Your task to perform on an android device: Search for the new Jordans on Nike.com Image 0: 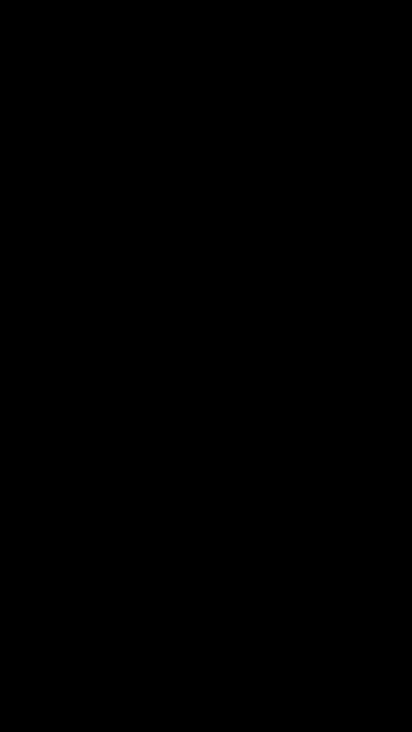
Step 0: press home button
Your task to perform on an android device: Search for the new Jordans on Nike.com Image 1: 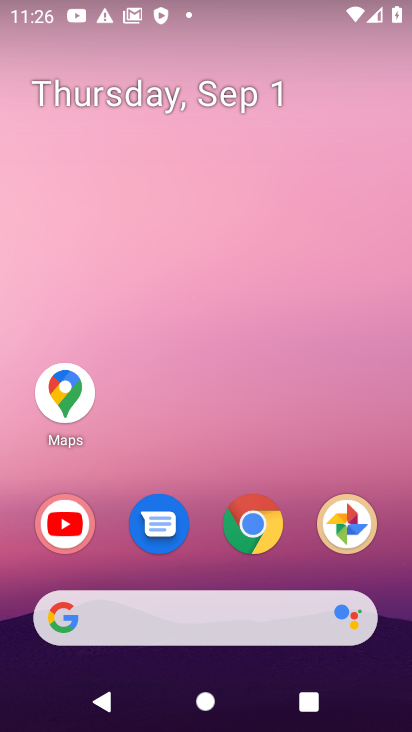
Step 1: click (256, 528)
Your task to perform on an android device: Search for the new Jordans on Nike.com Image 2: 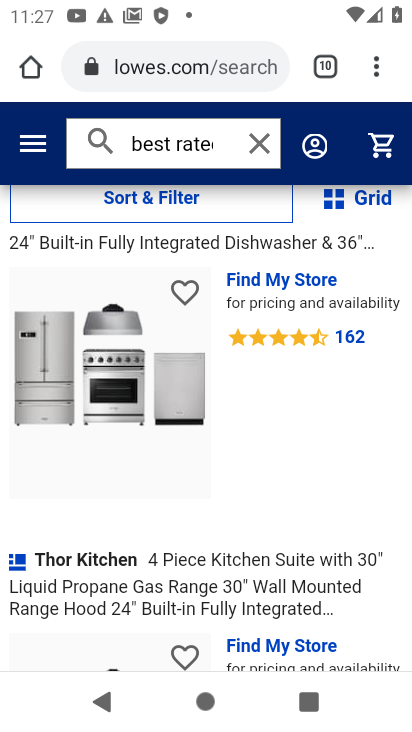
Step 2: click (330, 75)
Your task to perform on an android device: Search for the new Jordans on Nike.com Image 3: 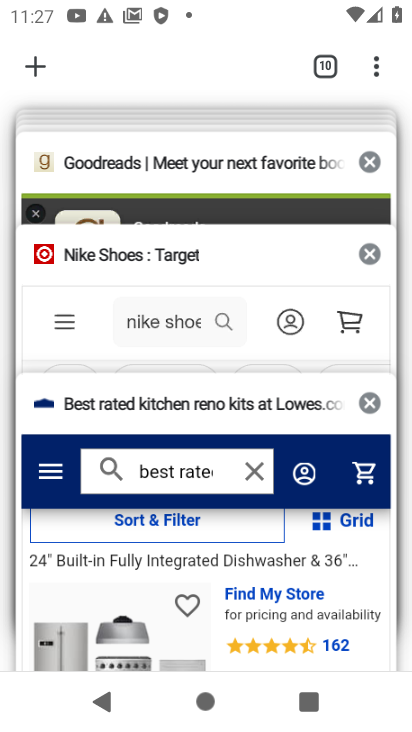
Step 3: click (39, 69)
Your task to perform on an android device: Search for the new Jordans on Nike.com Image 4: 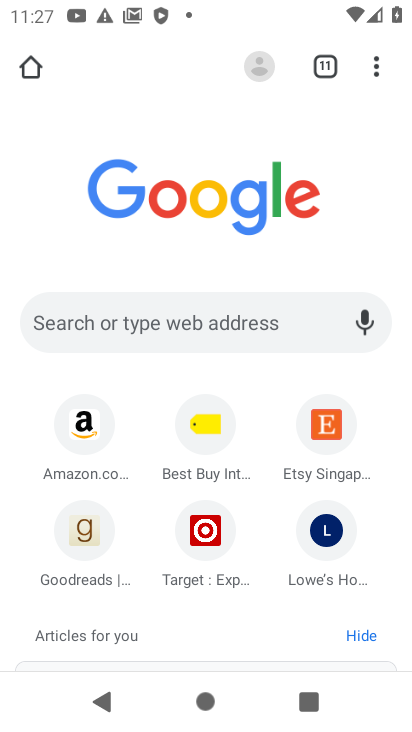
Step 4: click (169, 317)
Your task to perform on an android device: Search for the new Jordans on Nike.com Image 5: 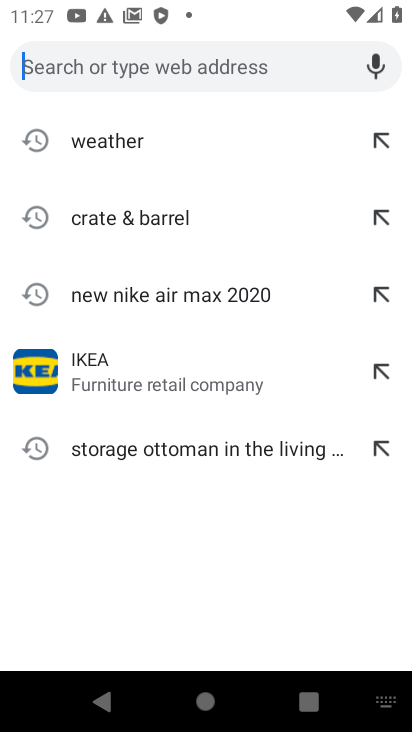
Step 5: type "nike.com"
Your task to perform on an android device: Search for the new Jordans on Nike.com Image 6: 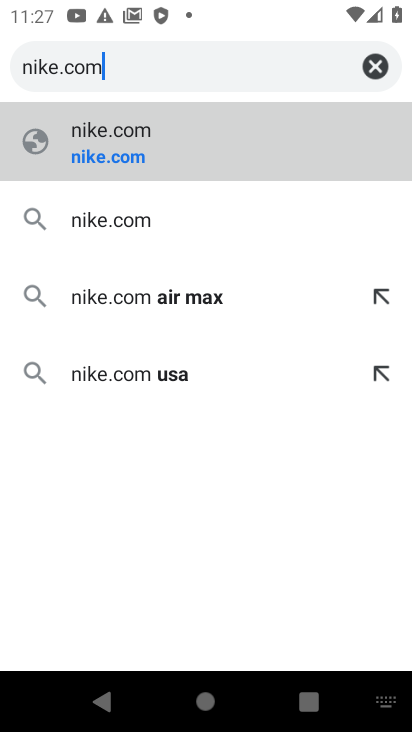
Step 6: click (163, 136)
Your task to perform on an android device: Search for the new Jordans on Nike.com Image 7: 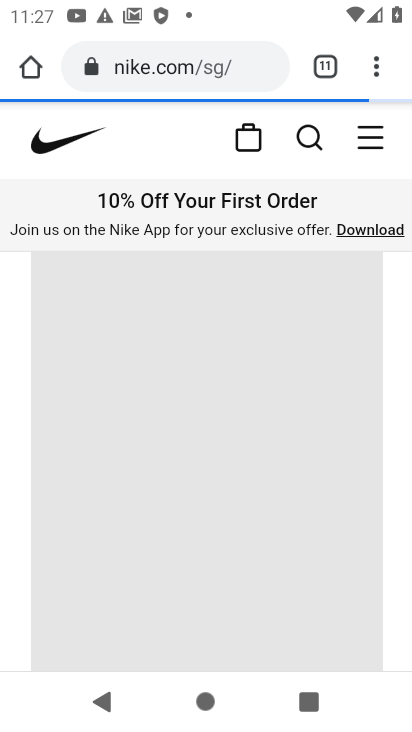
Step 7: click (312, 141)
Your task to perform on an android device: Search for the new Jordans on Nike.com Image 8: 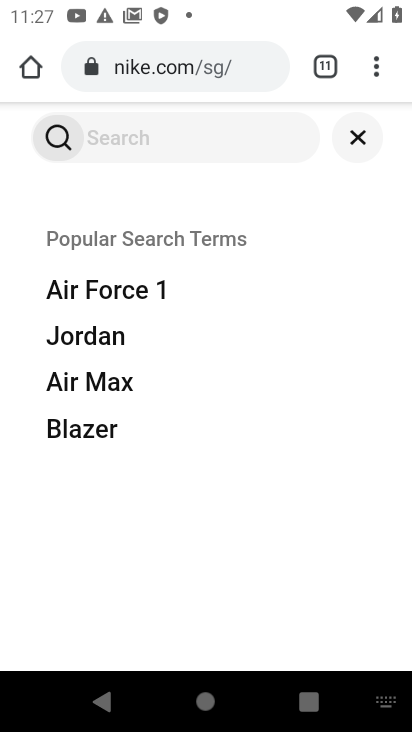
Step 8: click (232, 139)
Your task to perform on an android device: Search for the new Jordans on Nike.com Image 9: 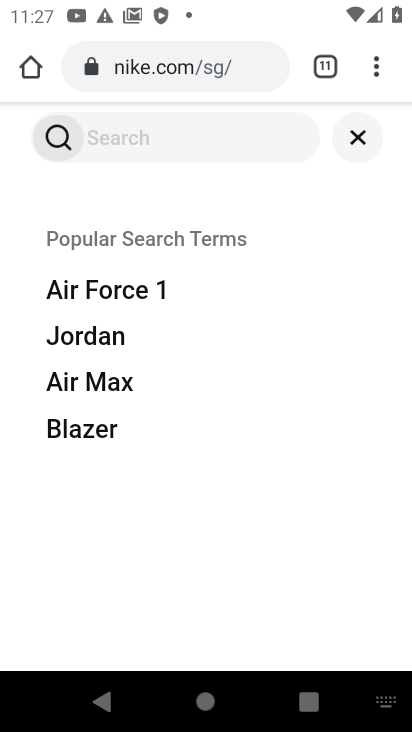
Step 9: click (232, 139)
Your task to perform on an android device: Search for the new Jordans on Nike.com Image 10: 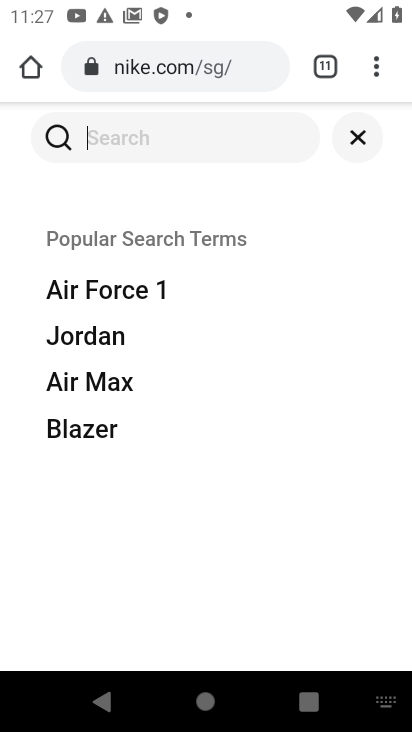
Step 10: click (102, 337)
Your task to perform on an android device: Search for the new Jordans on Nike.com Image 11: 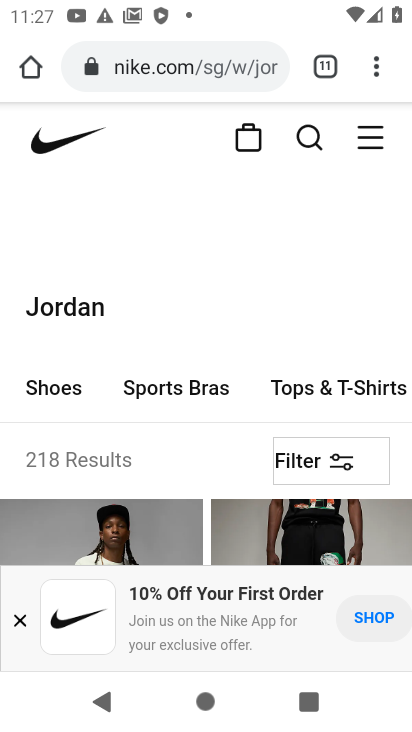
Step 11: click (327, 459)
Your task to perform on an android device: Search for the new Jordans on Nike.com Image 12: 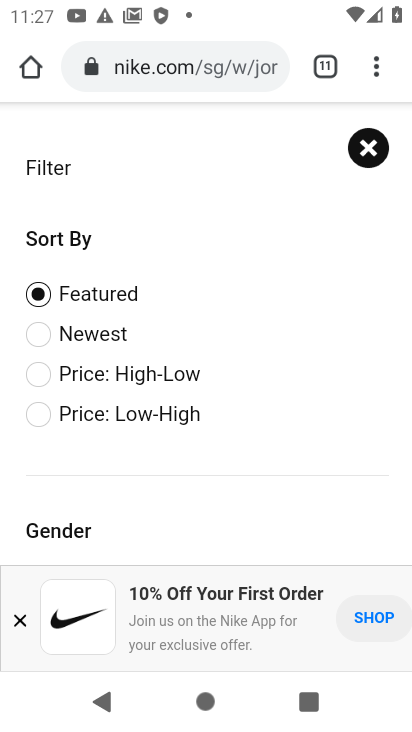
Step 12: click (72, 329)
Your task to perform on an android device: Search for the new Jordans on Nike.com Image 13: 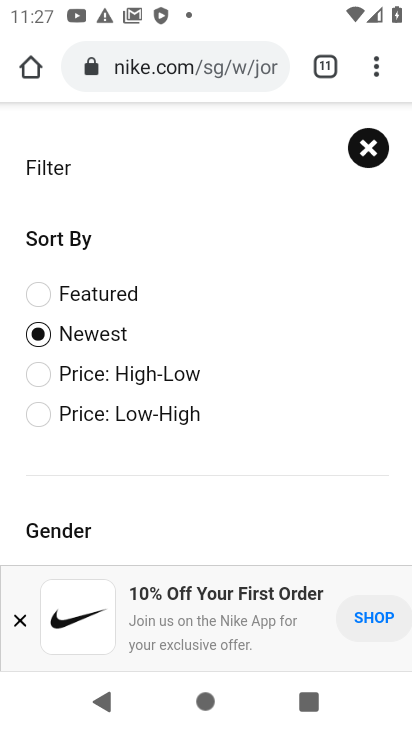
Step 13: click (14, 621)
Your task to perform on an android device: Search for the new Jordans on Nike.com Image 14: 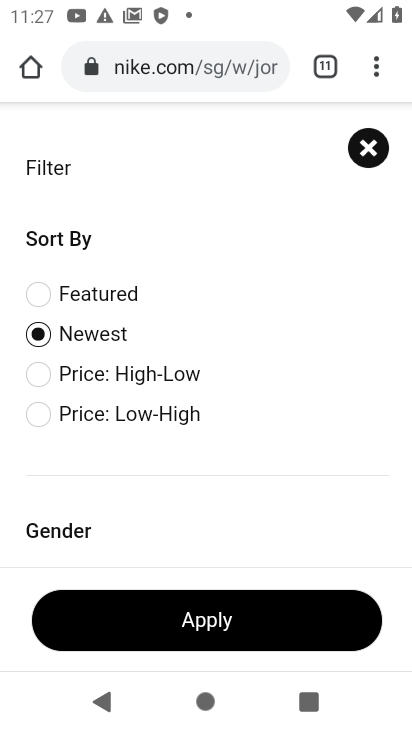
Step 14: click (117, 633)
Your task to perform on an android device: Search for the new Jordans on Nike.com Image 15: 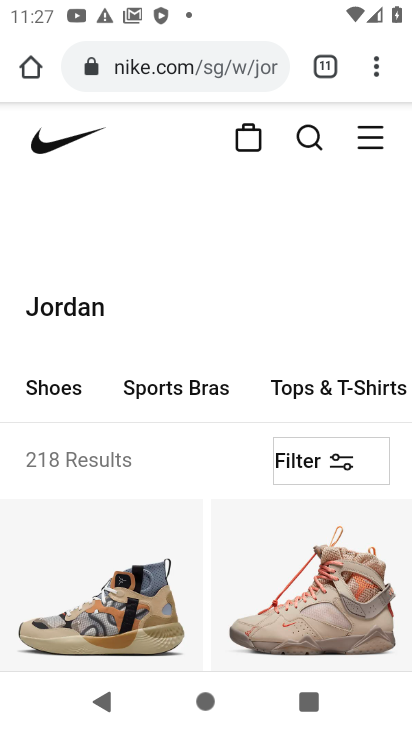
Step 15: task complete